Your task to perform on an android device: Open the phone app and click the voicemail tab. Image 0: 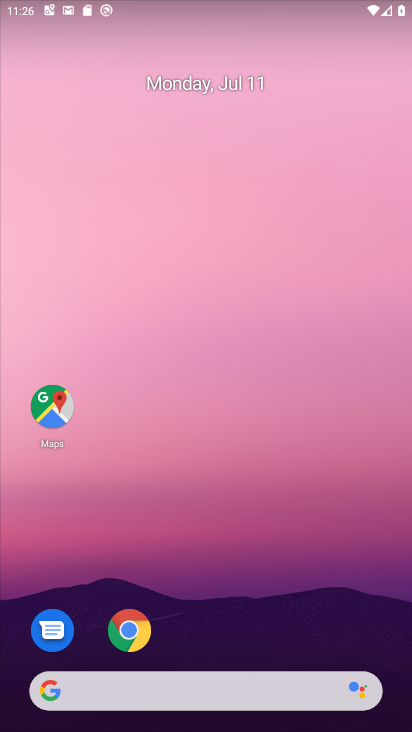
Step 0: drag from (179, 626) to (258, 190)
Your task to perform on an android device: Open the phone app and click the voicemail tab. Image 1: 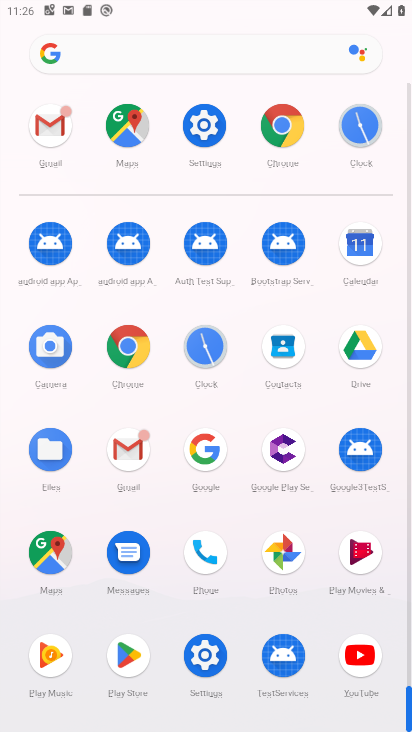
Step 1: click (197, 565)
Your task to perform on an android device: Open the phone app and click the voicemail tab. Image 2: 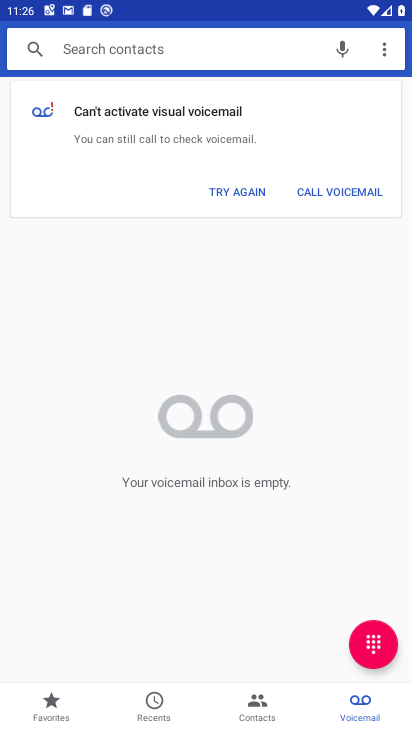
Step 2: task complete